Your task to perform on an android device: Open settings Image 0: 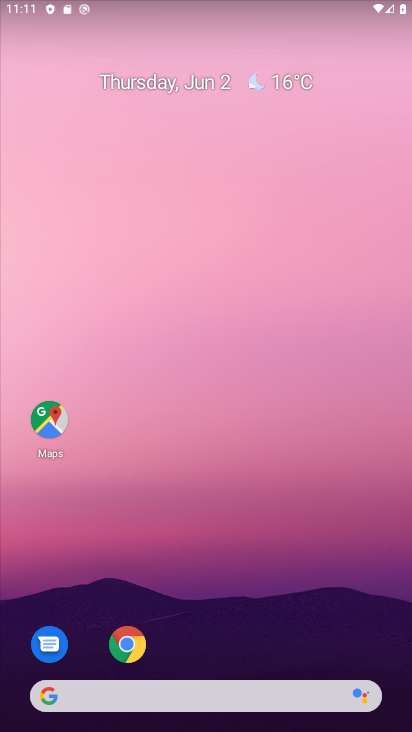
Step 0: drag from (235, 615) to (311, 230)
Your task to perform on an android device: Open settings Image 1: 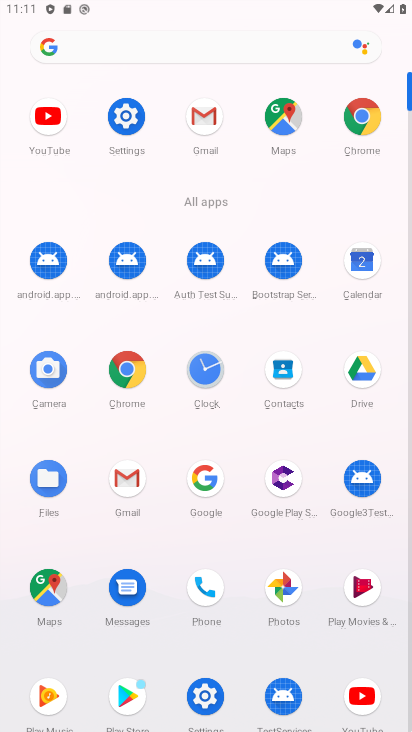
Step 1: click (210, 691)
Your task to perform on an android device: Open settings Image 2: 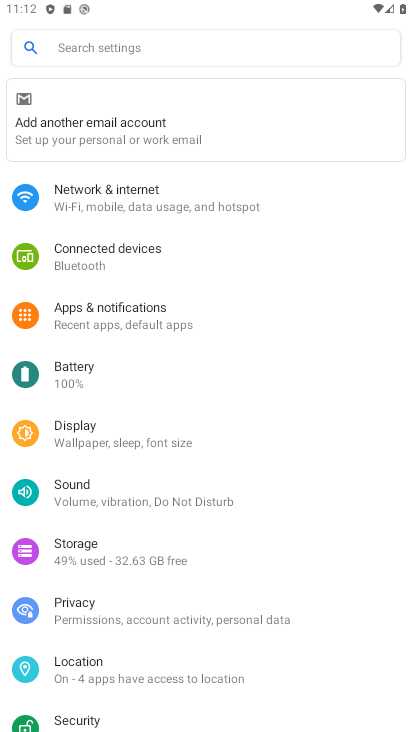
Step 2: task complete